Your task to perform on an android device: open the mobile data screen to see how much data has been used Image 0: 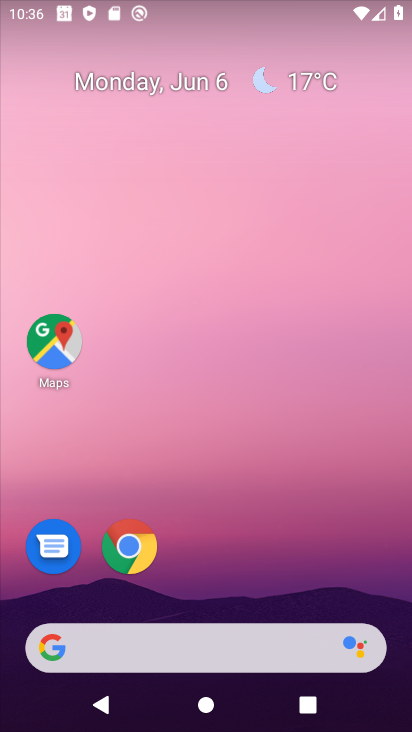
Step 0: drag from (290, 311) to (271, 118)
Your task to perform on an android device: open the mobile data screen to see how much data has been used Image 1: 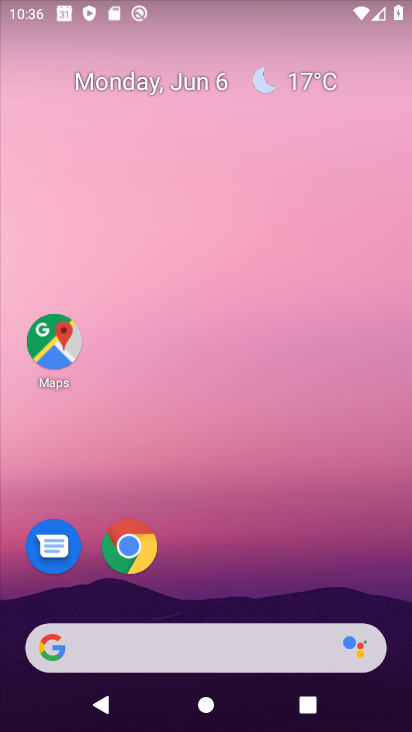
Step 1: drag from (277, 550) to (220, 143)
Your task to perform on an android device: open the mobile data screen to see how much data has been used Image 2: 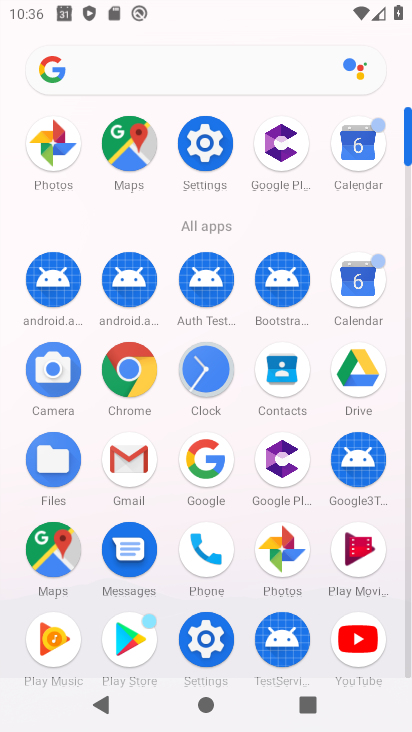
Step 2: click (210, 142)
Your task to perform on an android device: open the mobile data screen to see how much data has been used Image 3: 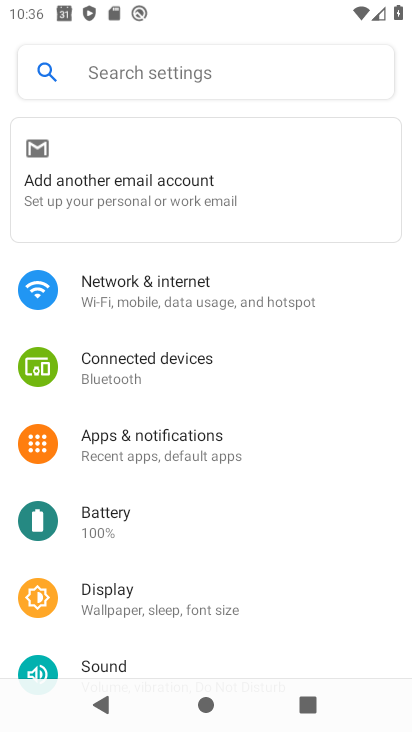
Step 3: click (162, 282)
Your task to perform on an android device: open the mobile data screen to see how much data has been used Image 4: 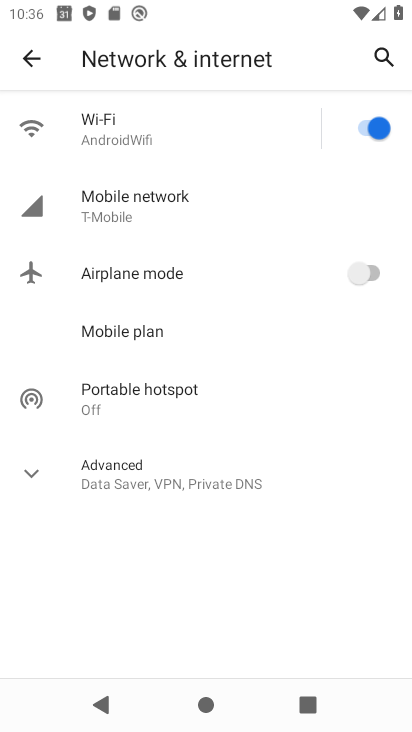
Step 4: click (145, 196)
Your task to perform on an android device: open the mobile data screen to see how much data has been used Image 5: 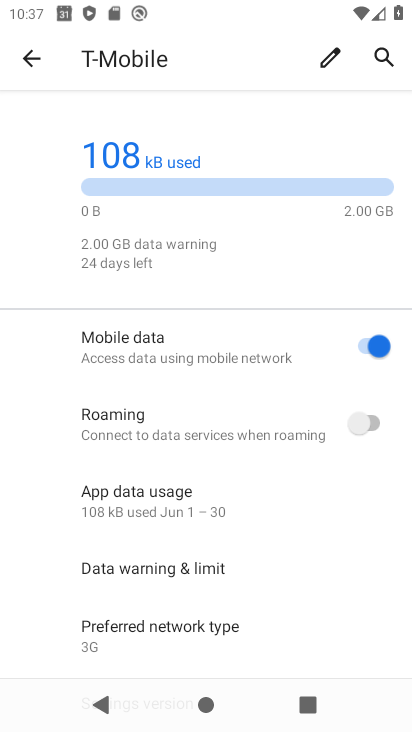
Step 5: task complete